Your task to perform on an android device: choose inbox layout in the gmail app Image 0: 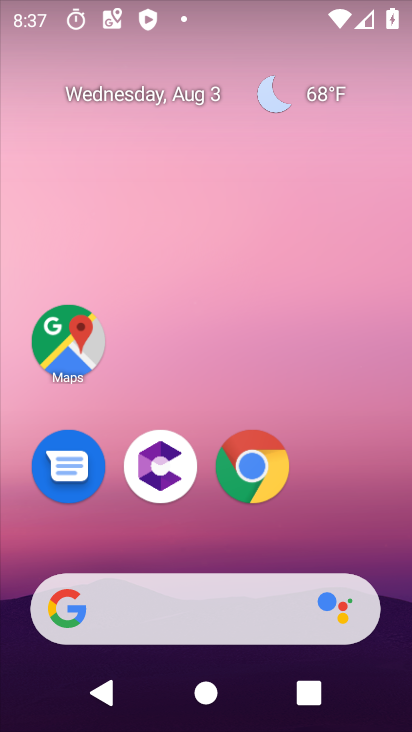
Step 0: drag from (359, 402) to (385, 7)
Your task to perform on an android device: choose inbox layout in the gmail app Image 1: 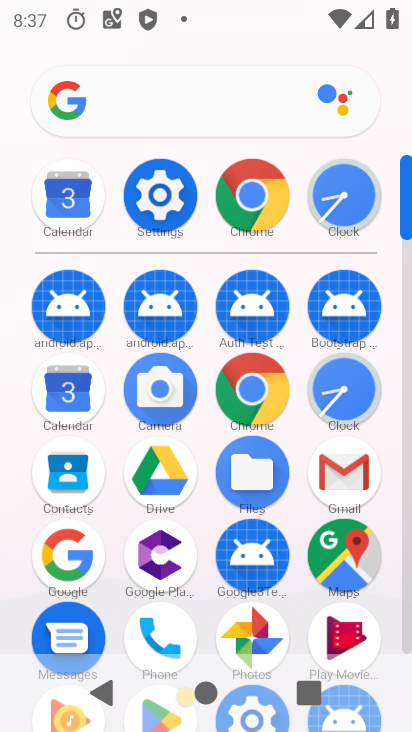
Step 1: click (151, 201)
Your task to perform on an android device: choose inbox layout in the gmail app Image 2: 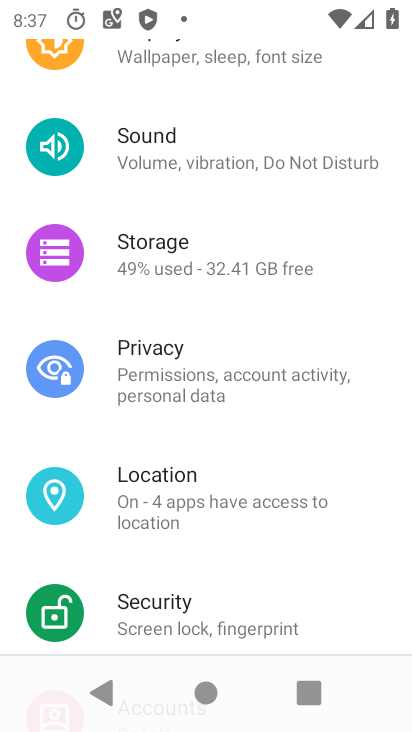
Step 2: press home button
Your task to perform on an android device: choose inbox layout in the gmail app Image 3: 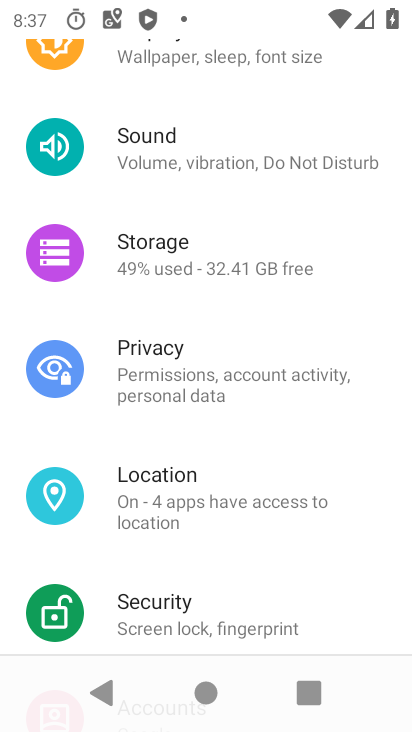
Step 3: press home button
Your task to perform on an android device: choose inbox layout in the gmail app Image 4: 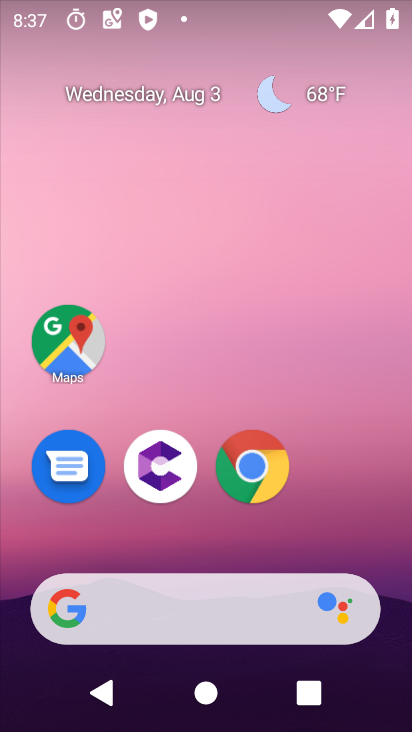
Step 4: drag from (363, 528) to (342, 118)
Your task to perform on an android device: choose inbox layout in the gmail app Image 5: 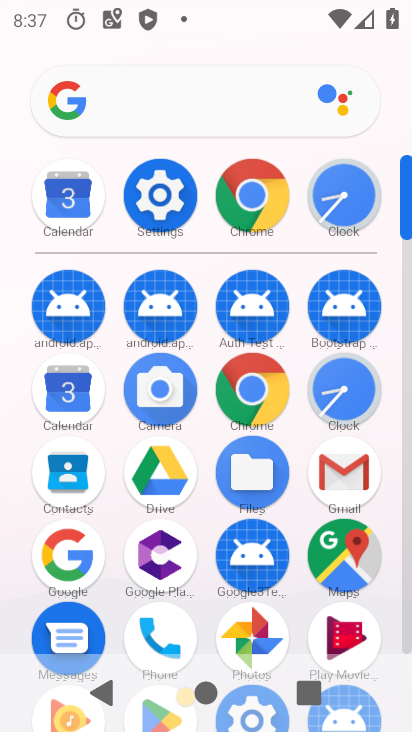
Step 5: click (348, 463)
Your task to perform on an android device: choose inbox layout in the gmail app Image 6: 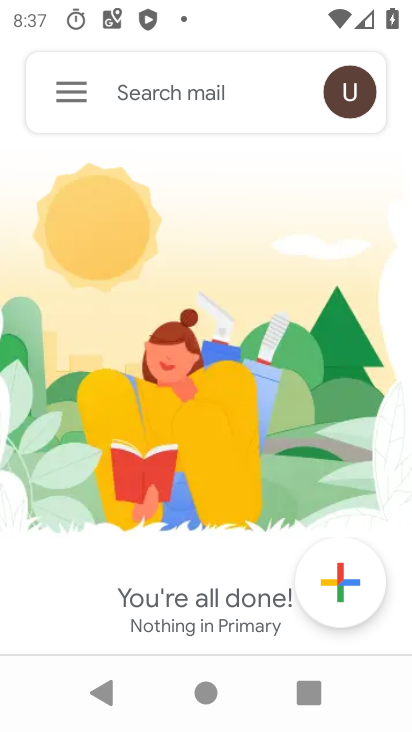
Step 6: click (54, 98)
Your task to perform on an android device: choose inbox layout in the gmail app Image 7: 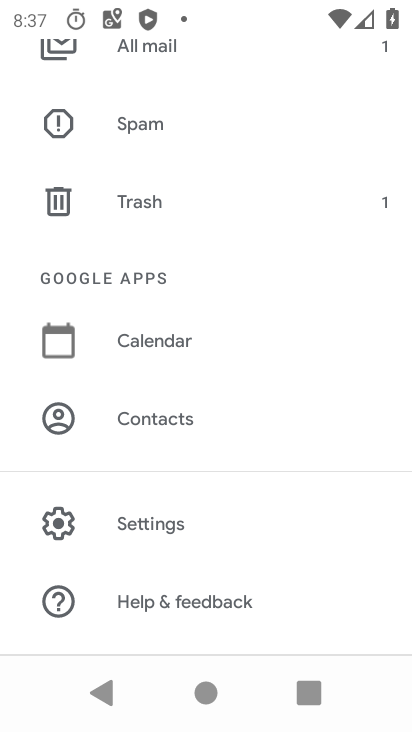
Step 7: click (135, 517)
Your task to perform on an android device: choose inbox layout in the gmail app Image 8: 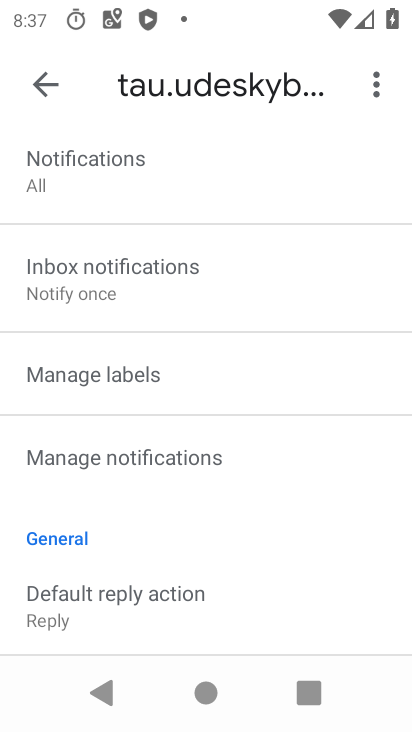
Step 8: drag from (264, 591) to (312, 143)
Your task to perform on an android device: choose inbox layout in the gmail app Image 9: 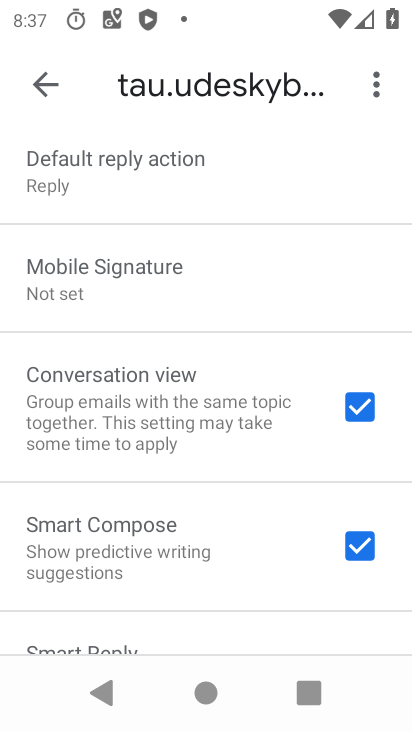
Step 9: drag from (210, 591) to (330, 139)
Your task to perform on an android device: choose inbox layout in the gmail app Image 10: 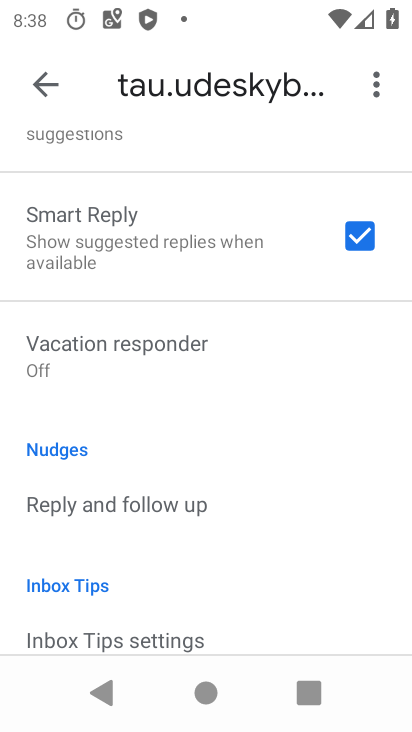
Step 10: drag from (301, 526) to (384, 167)
Your task to perform on an android device: choose inbox layout in the gmail app Image 11: 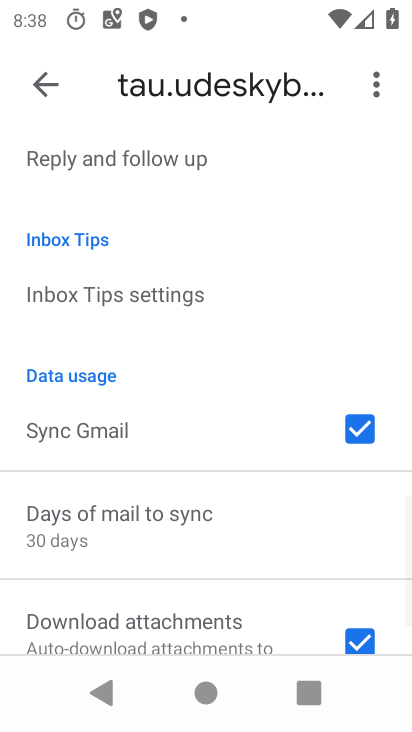
Step 11: drag from (257, 546) to (330, 187)
Your task to perform on an android device: choose inbox layout in the gmail app Image 12: 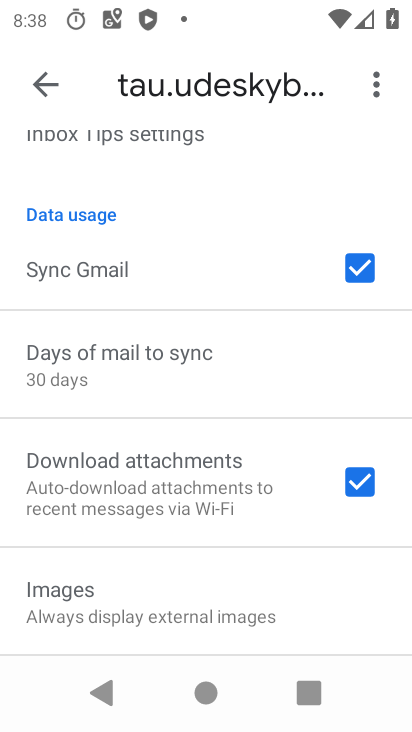
Step 12: drag from (249, 235) to (180, 685)
Your task to perform on an android device: choose inbox layout in the gmail app Image 13: 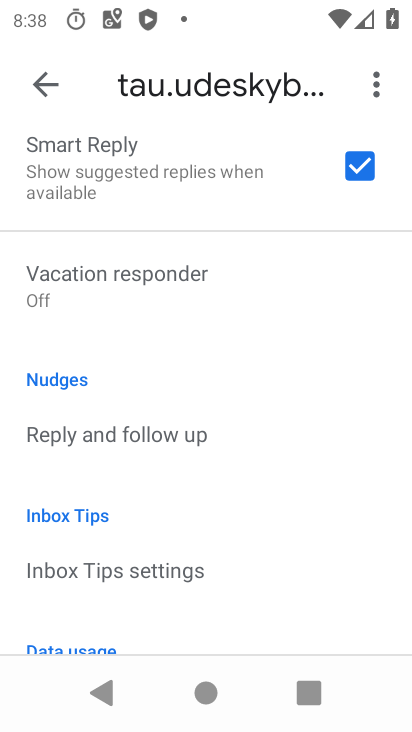
Step 13: drag from (243, 233) to (196, 633)
Your task to perform on an android device: choose inbox layout in the gmail app Image 14: 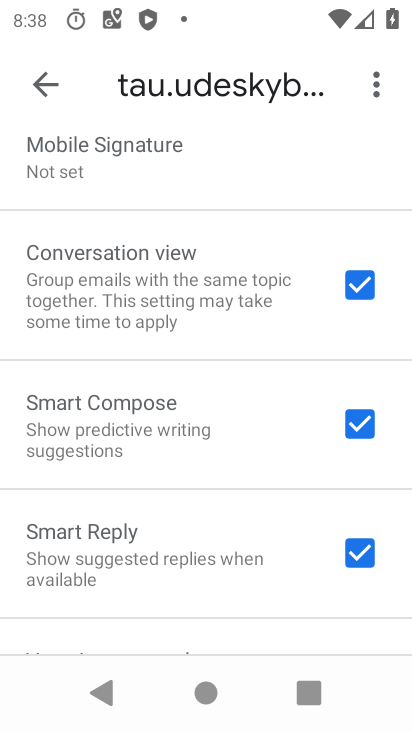
Step 14: drag from (223, 208) to (164, 623)
Your task to perform on an android device: choose inbox layout in the gmail app Image 15: 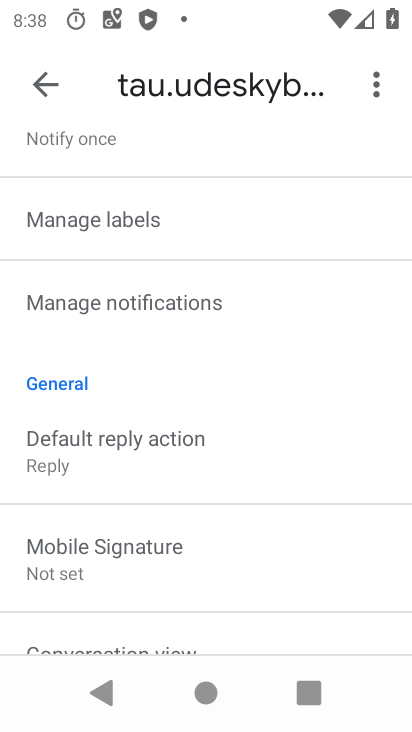
Step 15: drag from (250, 198) to (212, 560)
Your task to perform on an android device: choose inbox layout in the gmail app Image 16: 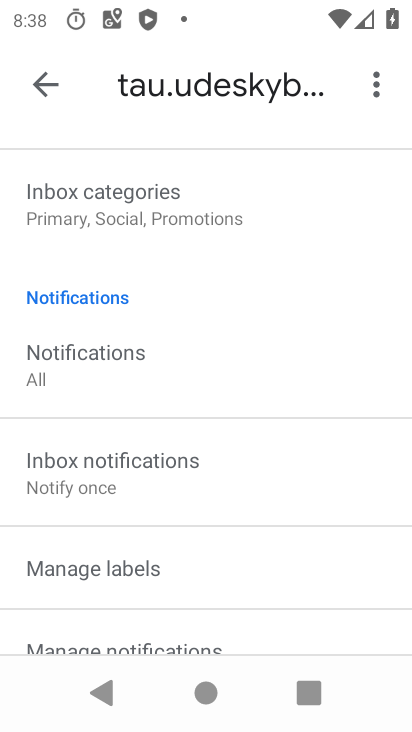
Step 16: drag from (230, 240) to (210, 564)
Your task to perform on an android device: choose inbox layout in the gmail app Image 17: 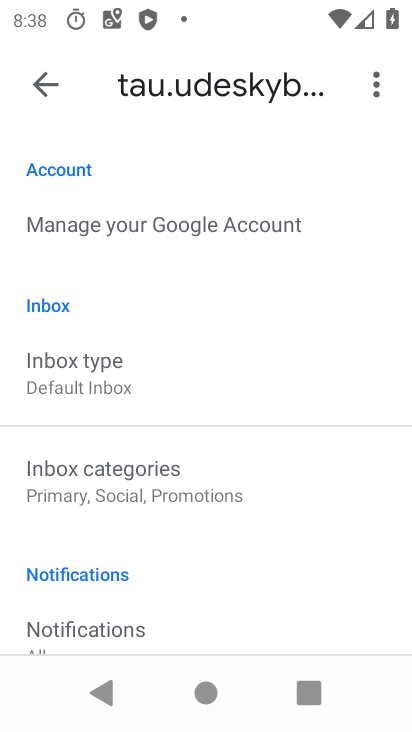
Step 17: click (71, 363)
Your task to perform on an android device: choose inbox layout in the gmail app Image 18: 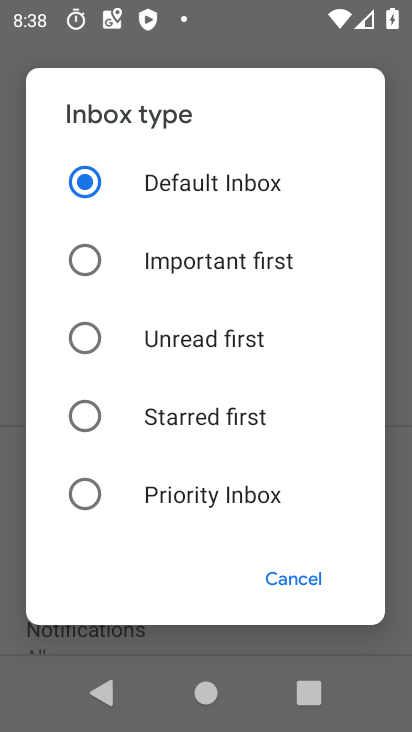
Step 18: task complete